Your task to perform on an android device: Search for "razer nari" on target, select the first entry, and add it to the cart. Image 0: 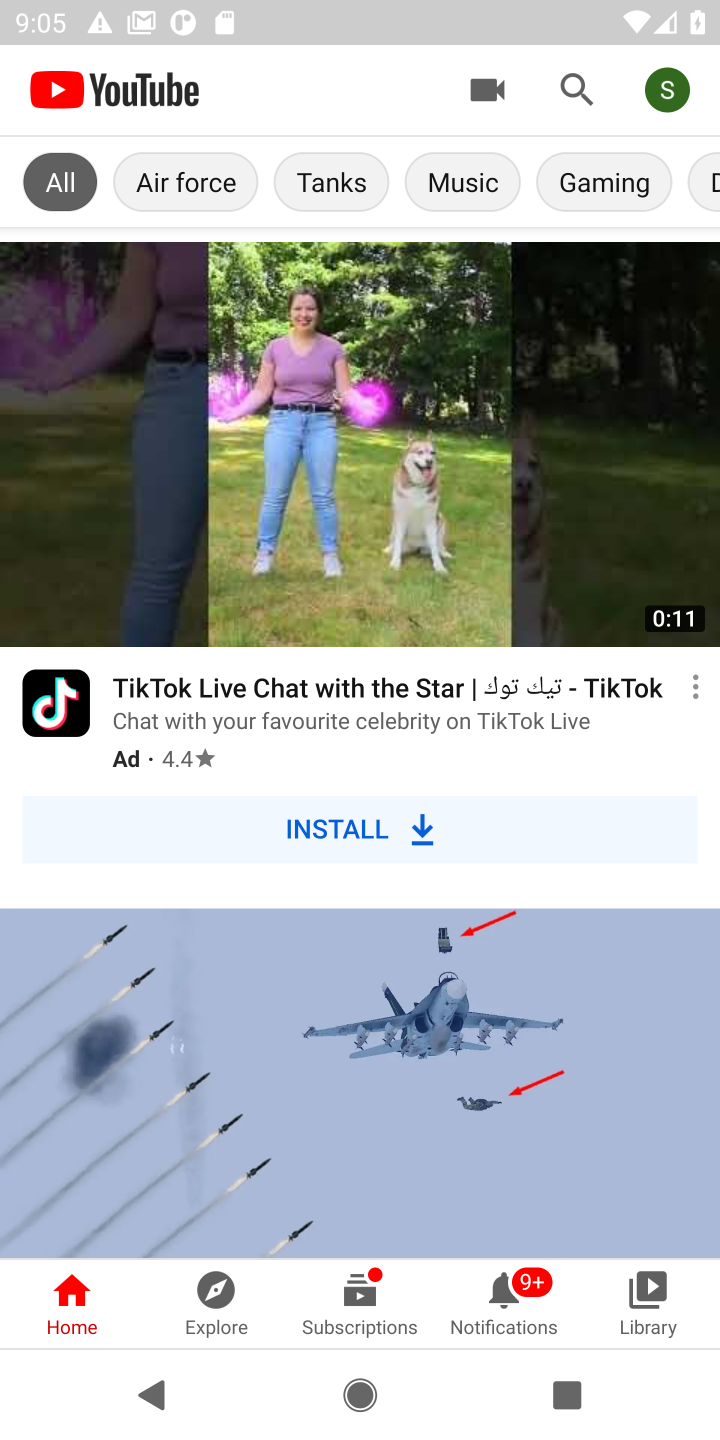
Step 0: press home button
Your task to perform on an android device: Search for "razer nari" on target, select the first entry, and add it to the cart. Image 1: 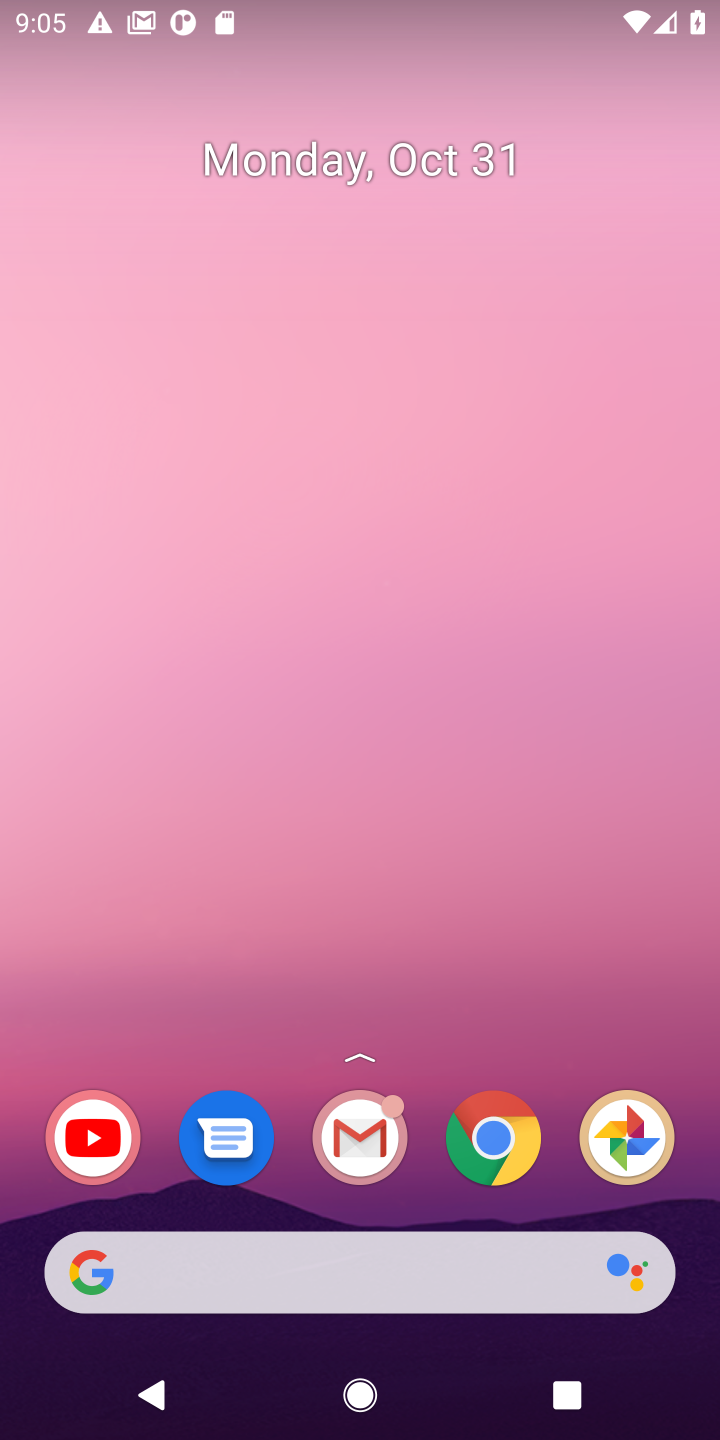
Step 1: drag from (439, 1307) to (422, 156)
Your task to perform on an android device: Search for "razer nari" on target, select the first entry, and add it to the cart. Image 2: 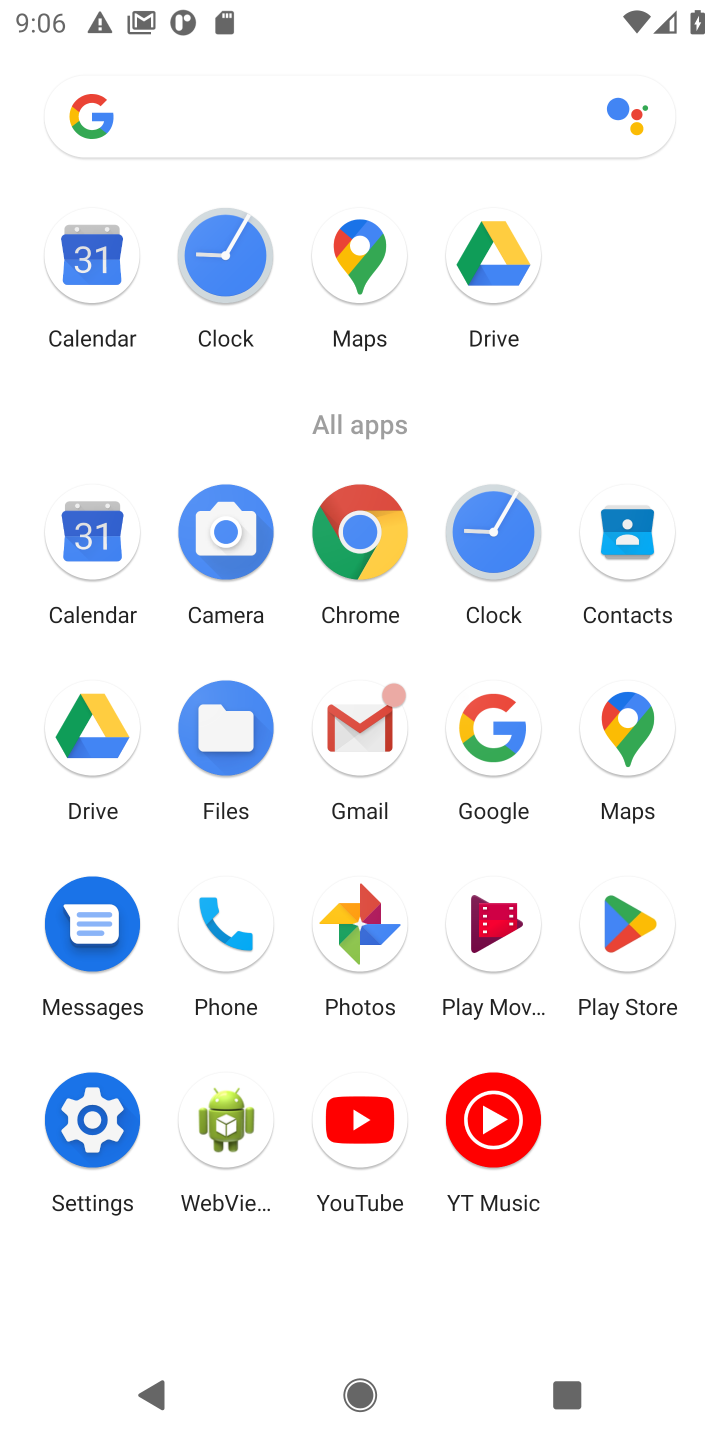
Step 2: click (355, 534)
Your task to perform on an android device: Search for "razer nari" on target, select the first entry, and add it to the cart. Image 3: 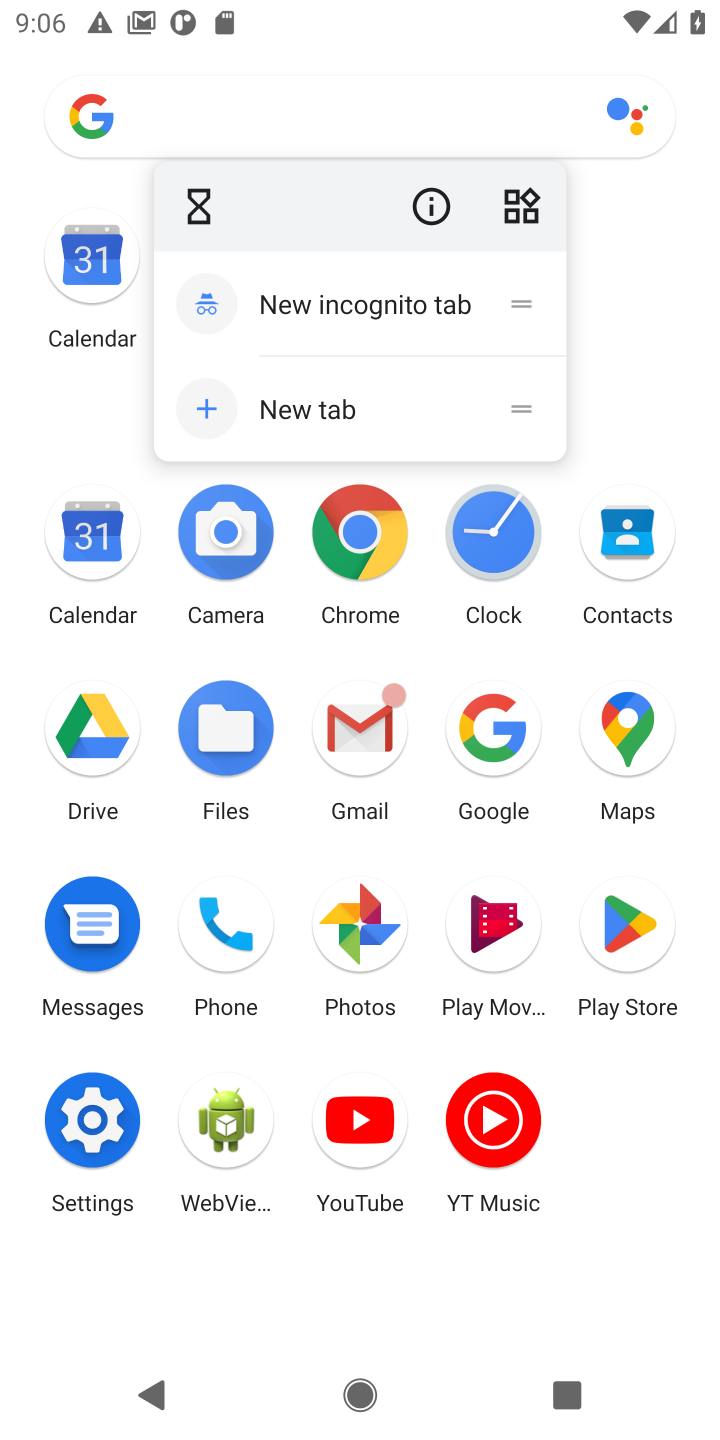
Step 3: click (367, 542)
Your task to perform on an android device: Search for "razer nari" on target, select the first entry, and add it to the cart. Image 4: 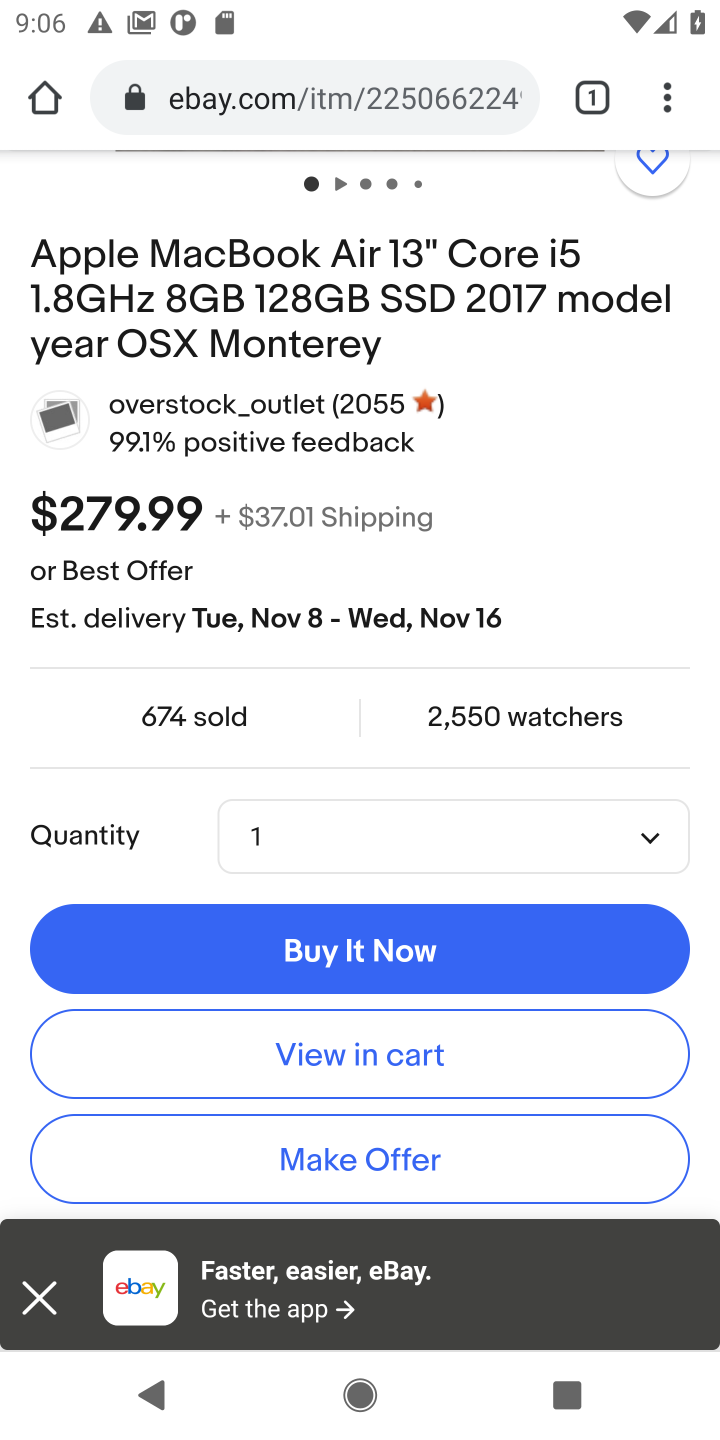
Step 4: click (257, 99)
Your task to perform on an android device: Search for "razer nari" on target, select the first entry, and add it to the cart. Image 5: 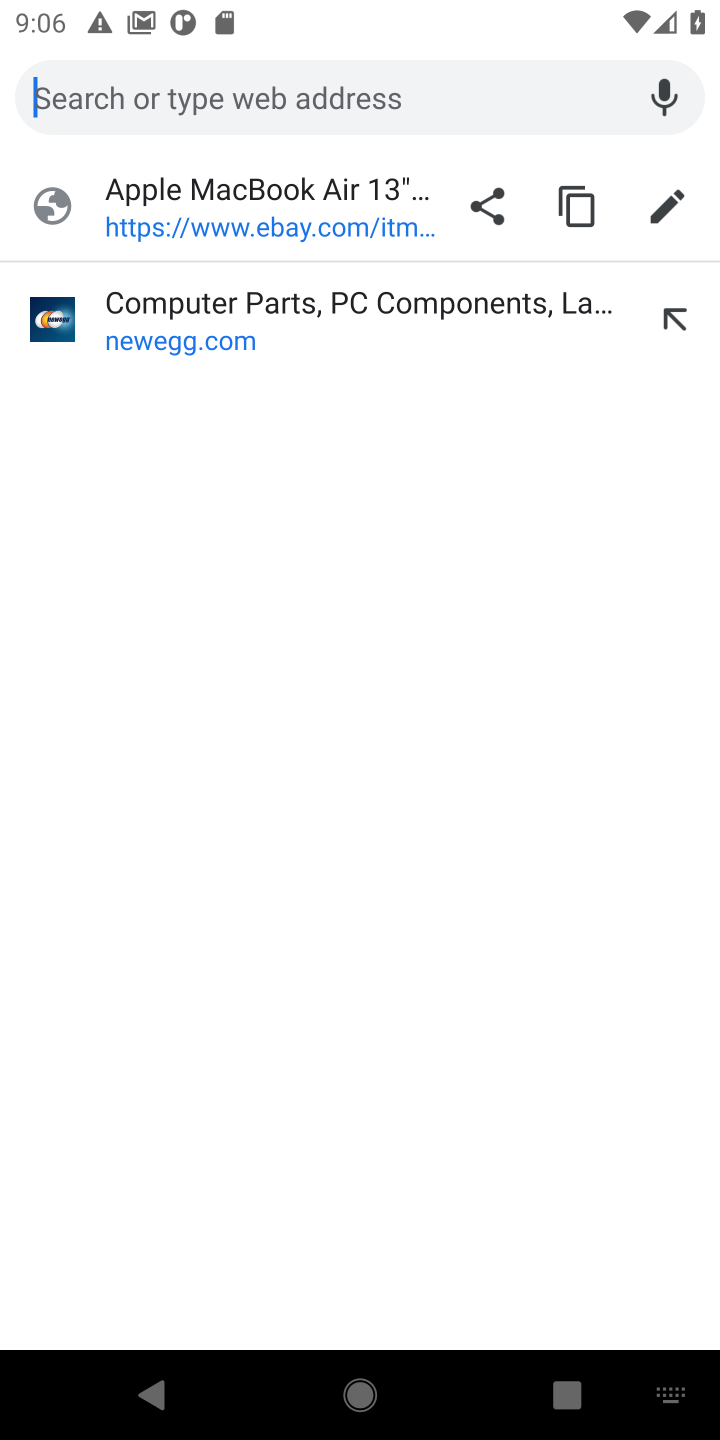
Step 5: type "target"
Your task to perform on an android device: Search for "razer nari" on target, select the first entry, and add it to the cart. Image 6: 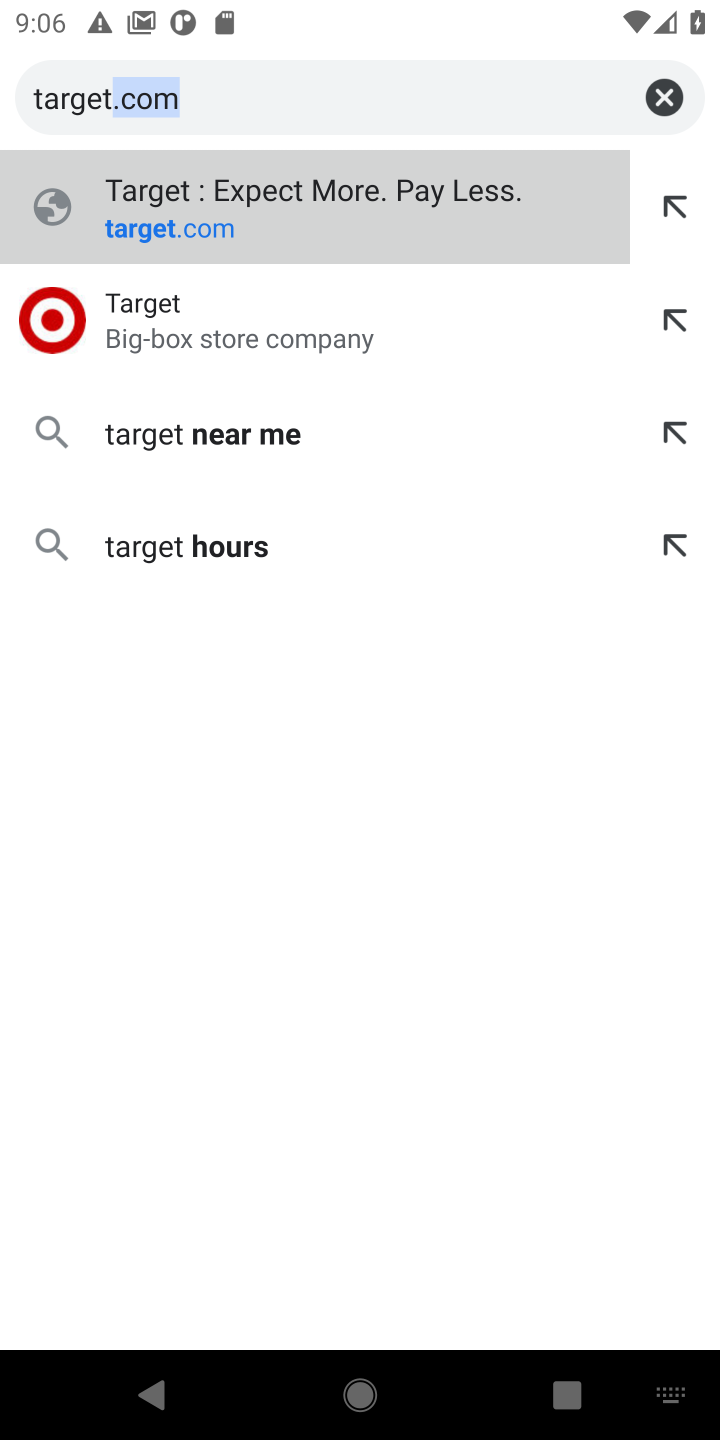
Step 6: click (154, 225)
Your task to perform on an android device: Search for "razer nari" on target, select the first entry, and add it to the cart. Image 7: 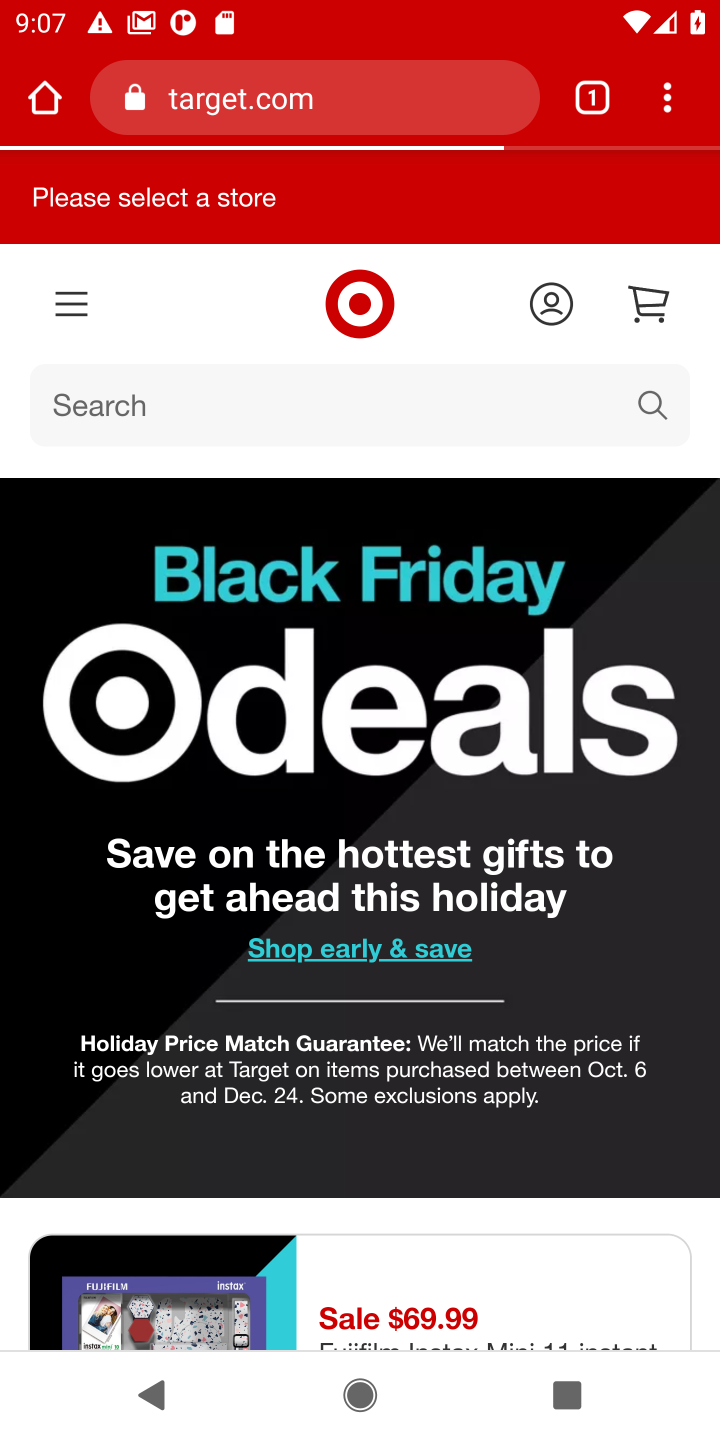
Step 7: drag from (449, 1147) to (637, 1404)
Your task to perform on an android device: Search for "razer nari" on target, select the first entry, and add it to the cart. Image 8: 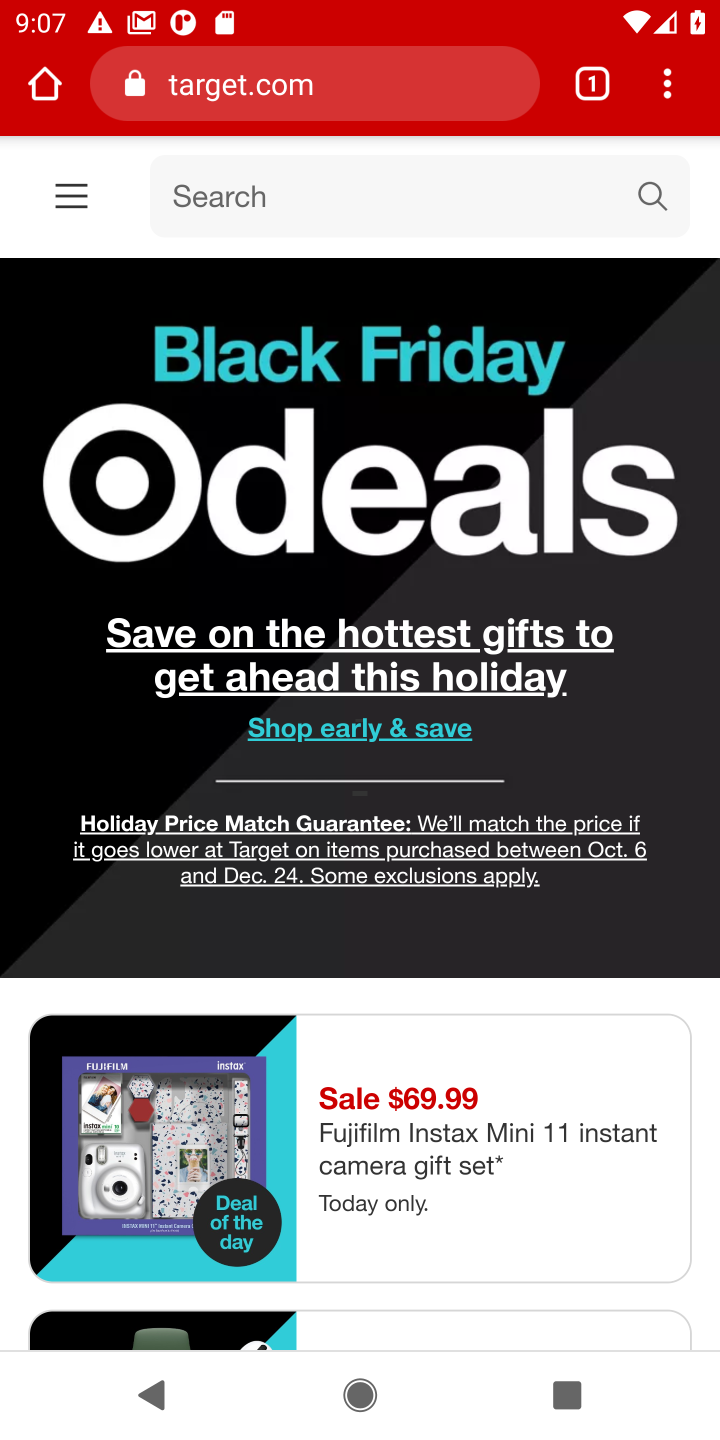
Step 8: click (300, 188)
Your task to perform on an android device: Search for "razer nari" on target, select the first entry, and add it to the cart. Image 9: 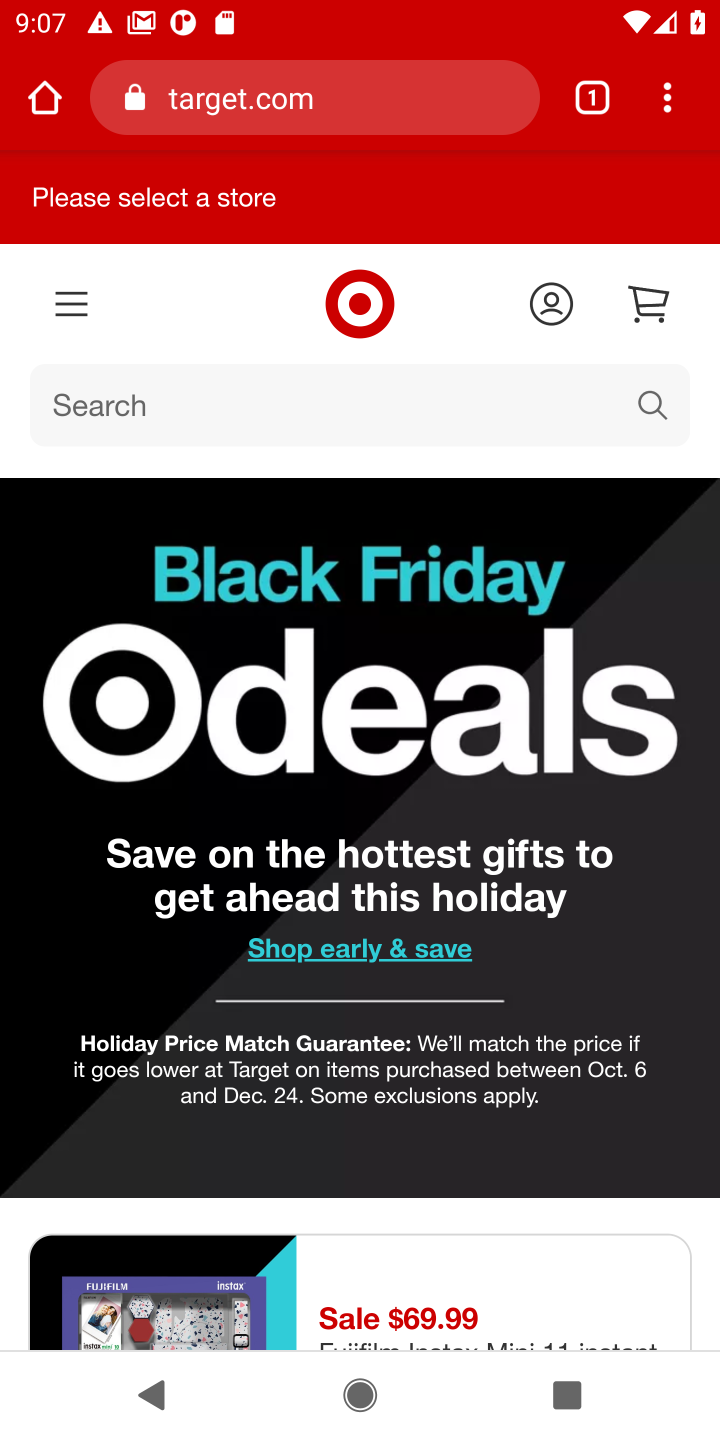
Step 9: click (130, 395)
Your task to perform on an android device: Search for "razer nari" on target, select the first entry, and add it to the cart. Image 10: 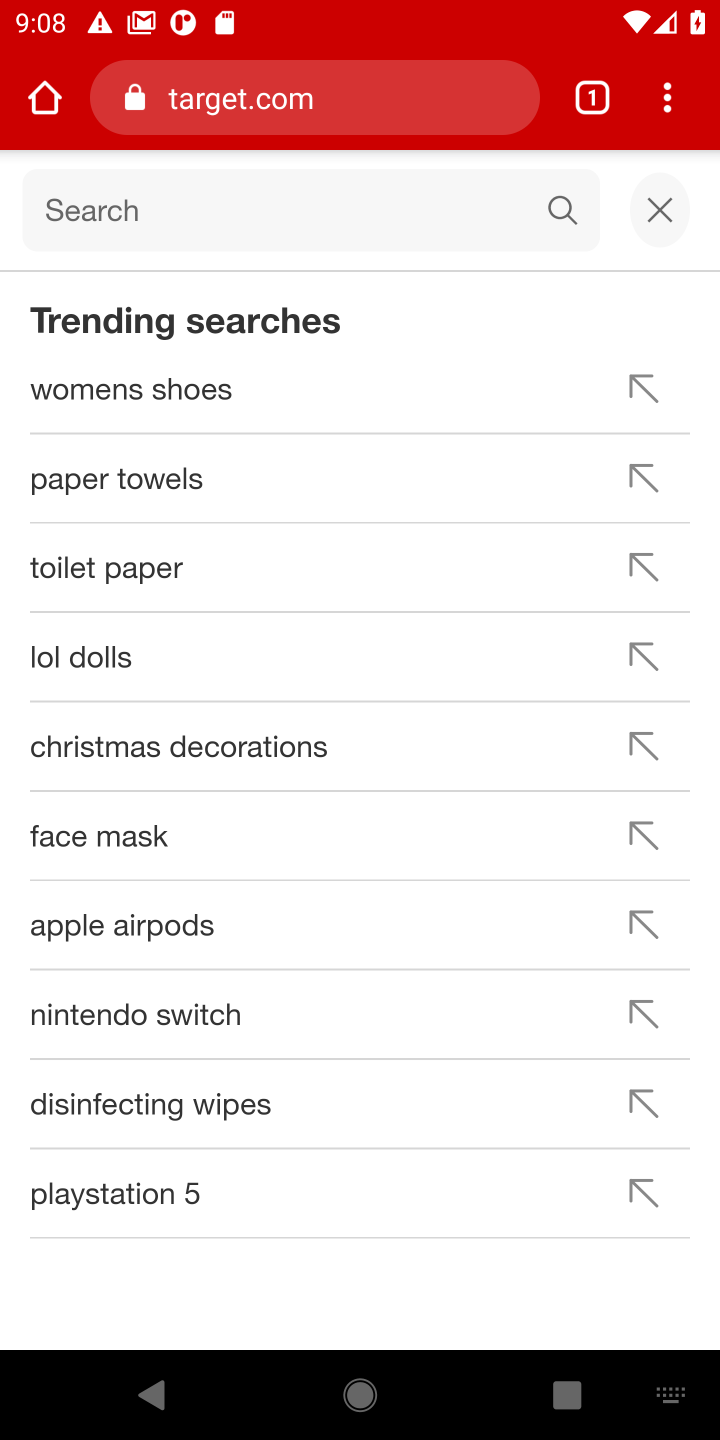
Step 10: type "razer nari"
Your task to perform on an android device: Search for "razer nari" on target, select the first entry, and add it to the cart. Image 11: 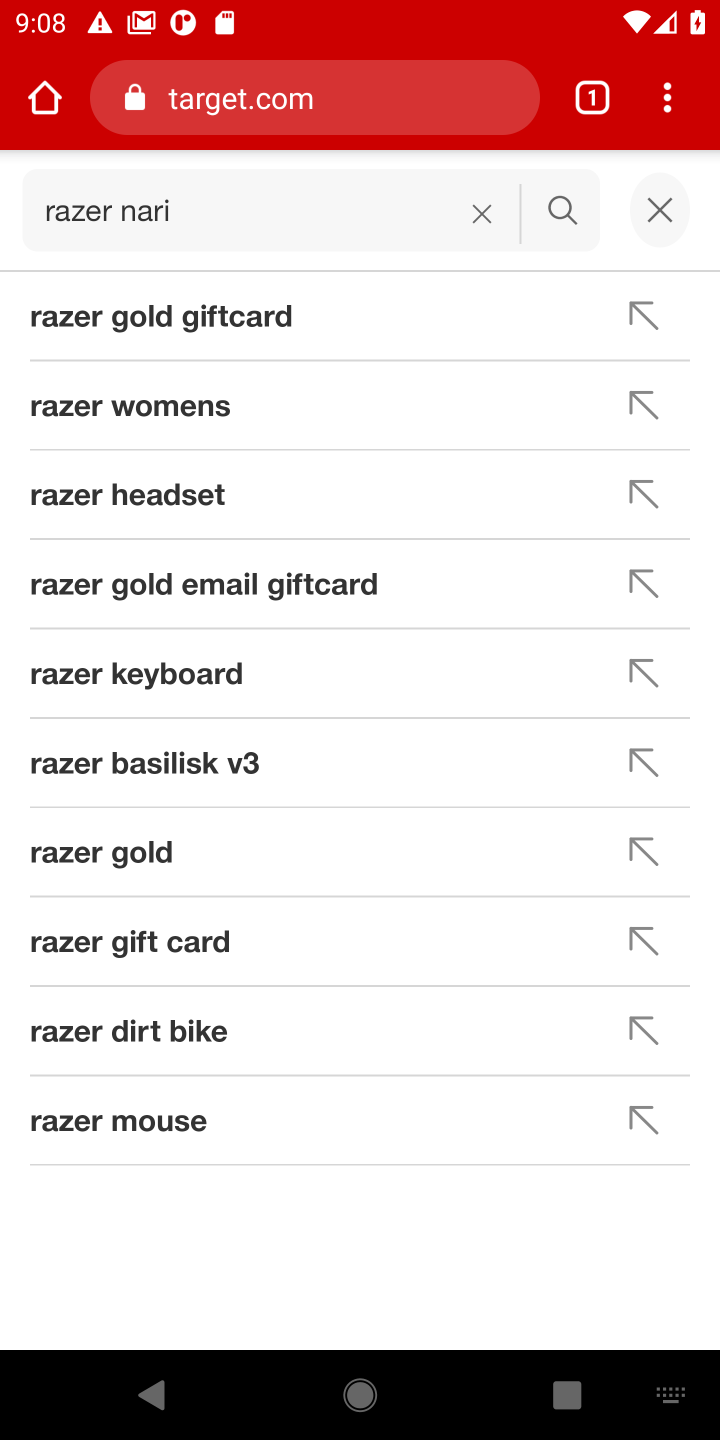
Step 11: click (561, 204)
Your task to perform on an android device: Search for "razer nari" on target, select the first entry, and add it to the cart. Image 12: 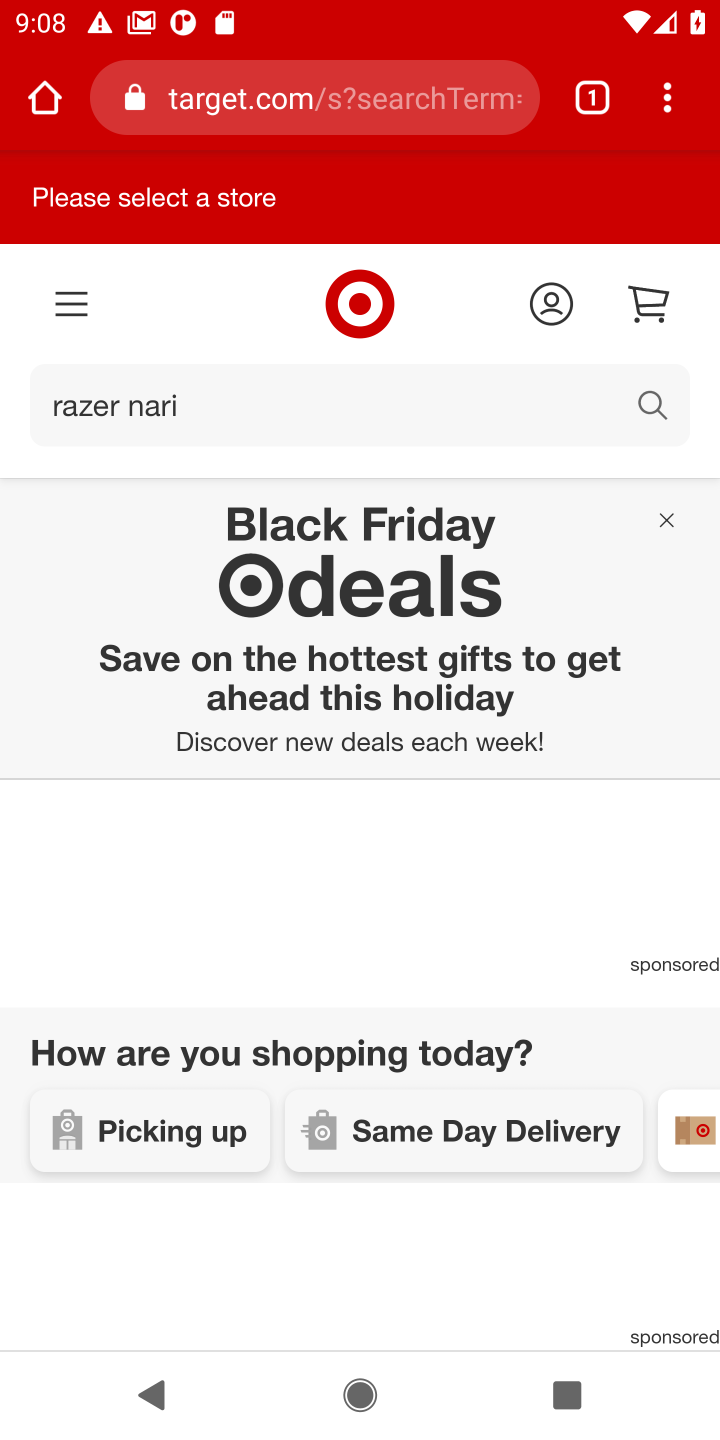
Step 12: drag from (406, 1214) to (454, 318)
Your task to perform on an android device: Search for "razer nari" on target, select the first entry, and add it to the cart. Image 13: 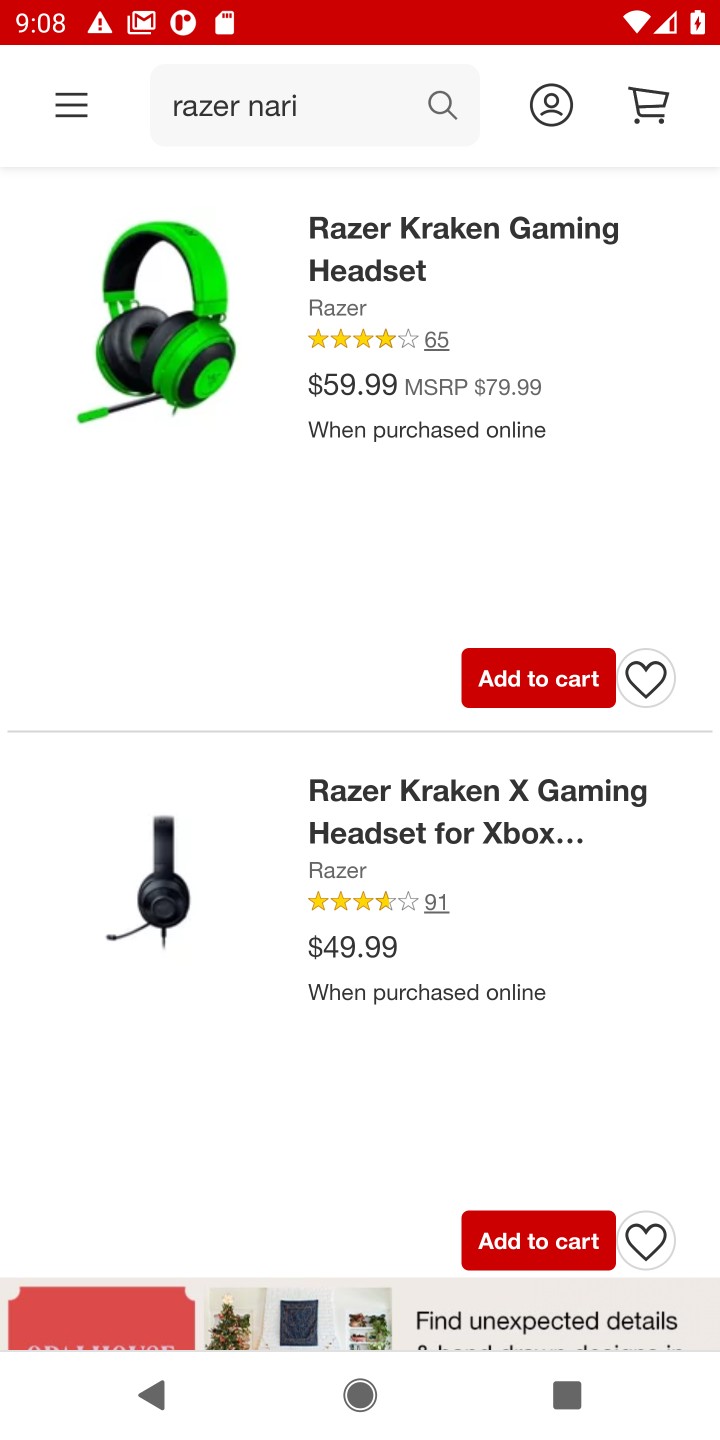
Step 13: click (207, 503)
Your task to perform on an android device: Search for "razer nari" on target, select the first entry, and add it to the cart. Image 14: 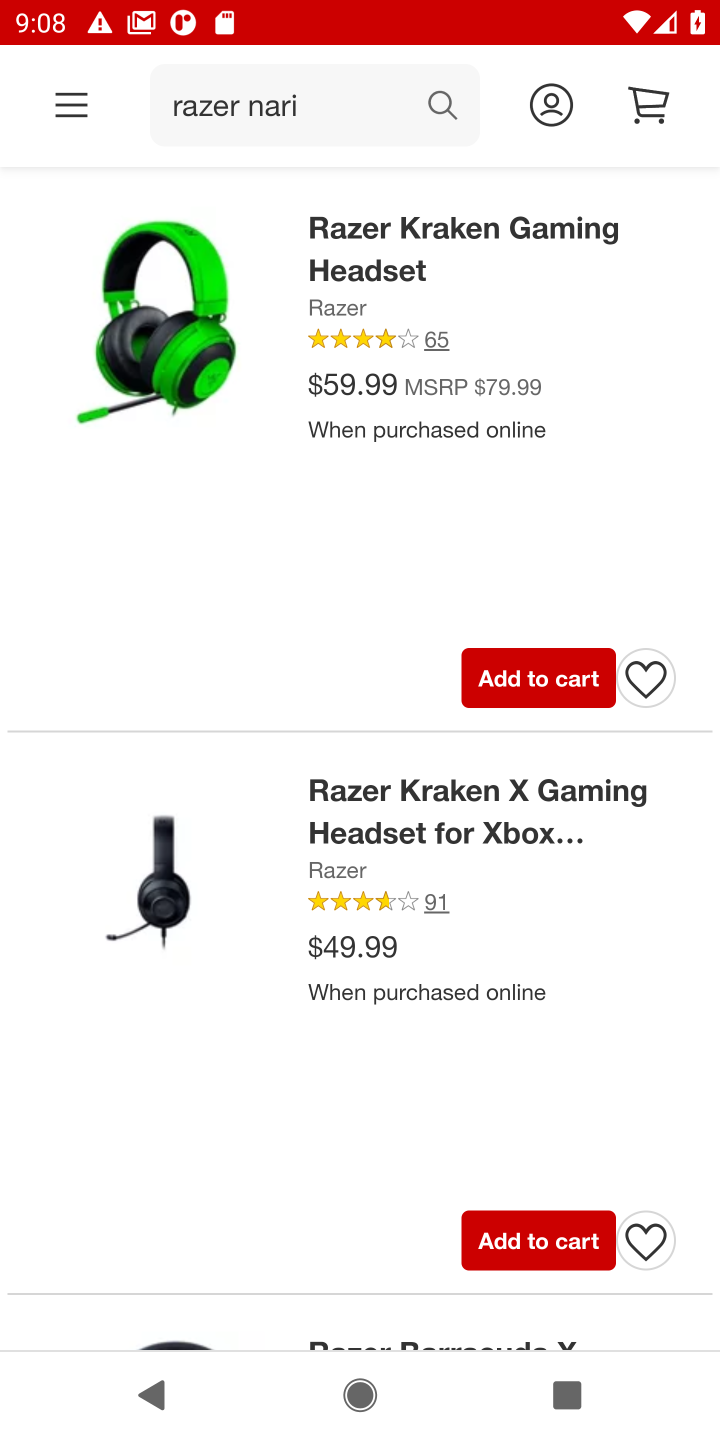
Step 14: click (184, 304)
Your task to perform on an android device: Search for "razer nari" on target, select the first entry, and add it to the cart. Image 15: 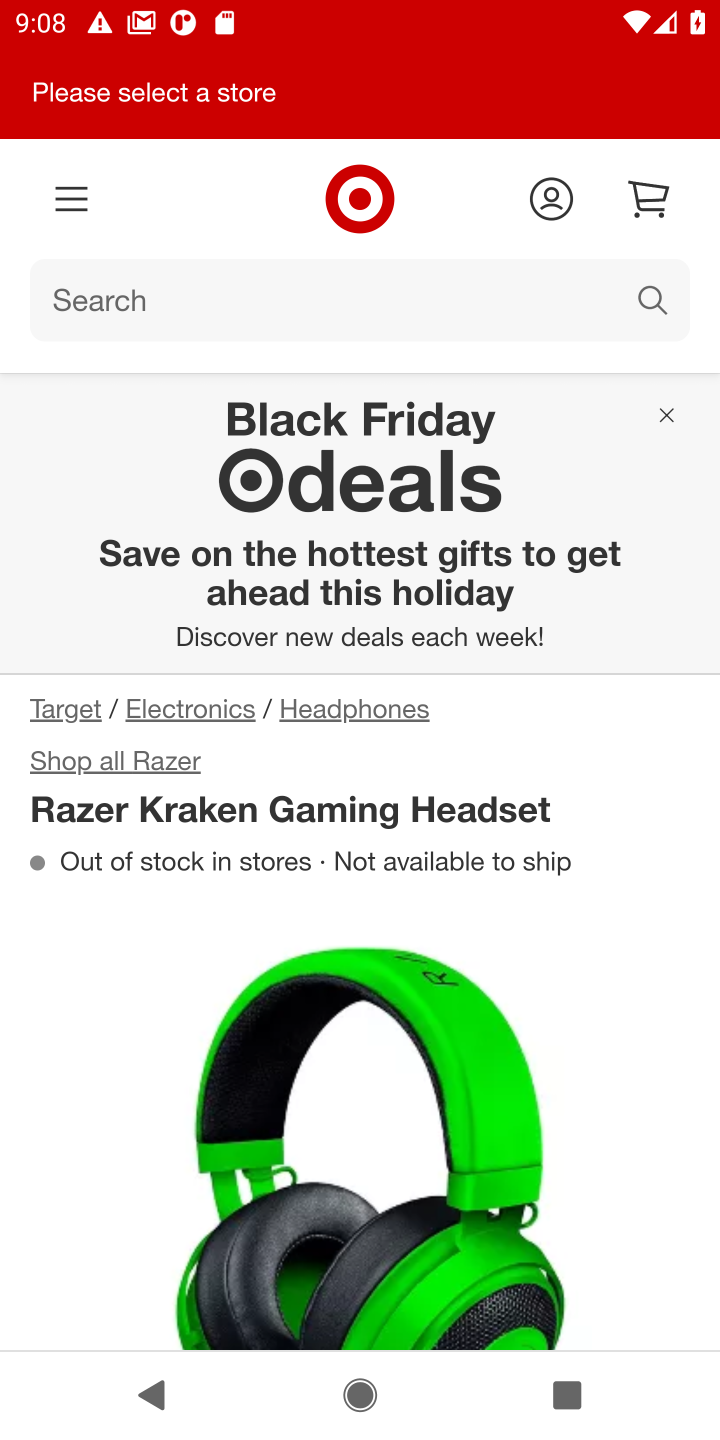
Step 15: drag from (410, 775) to (467, 442)
Your task to perform on an android device: Search for "razer nari" on target, select the first entry, and add it to the cart. Image 16: 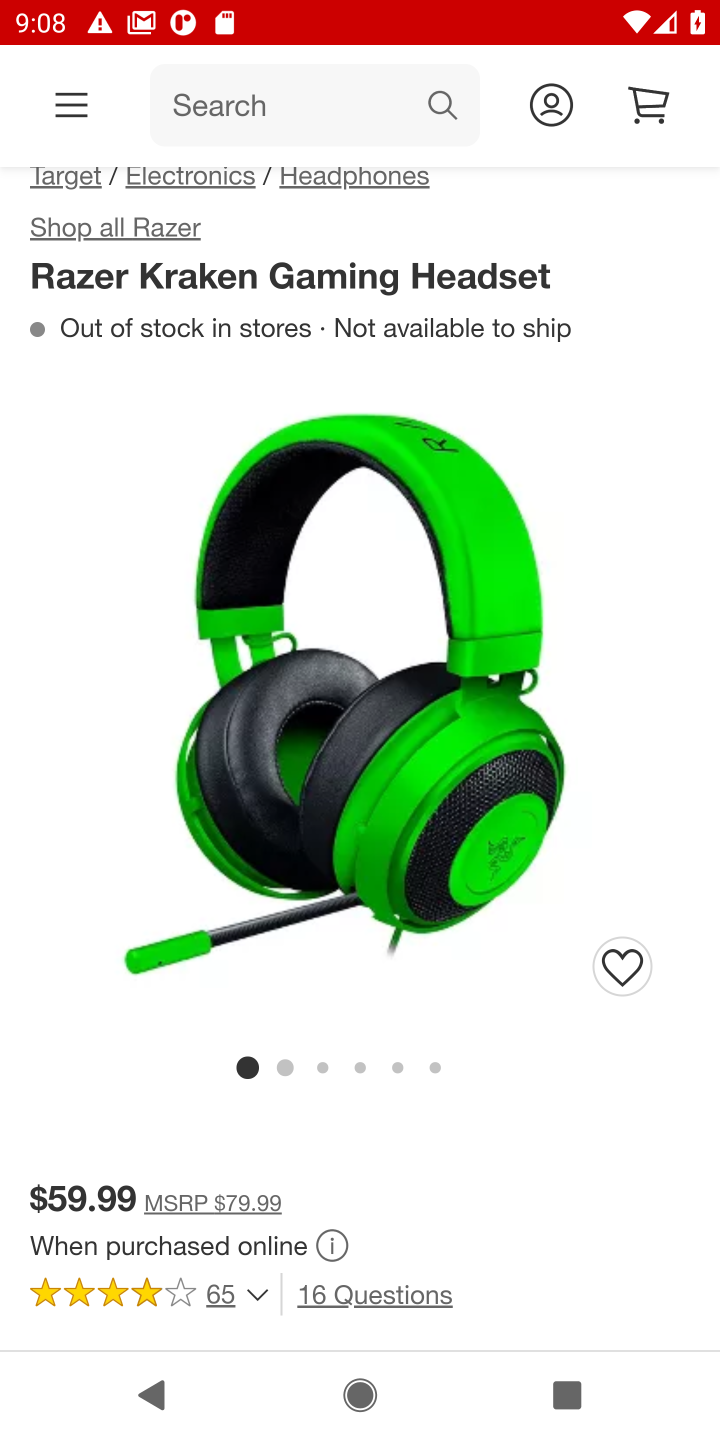
Step 16: drag from (316, 1141) to (462, 371)
Your task to perform on an android device: Search for "razer nari" on target, select the first entry, and add it to the cart. Image 17: 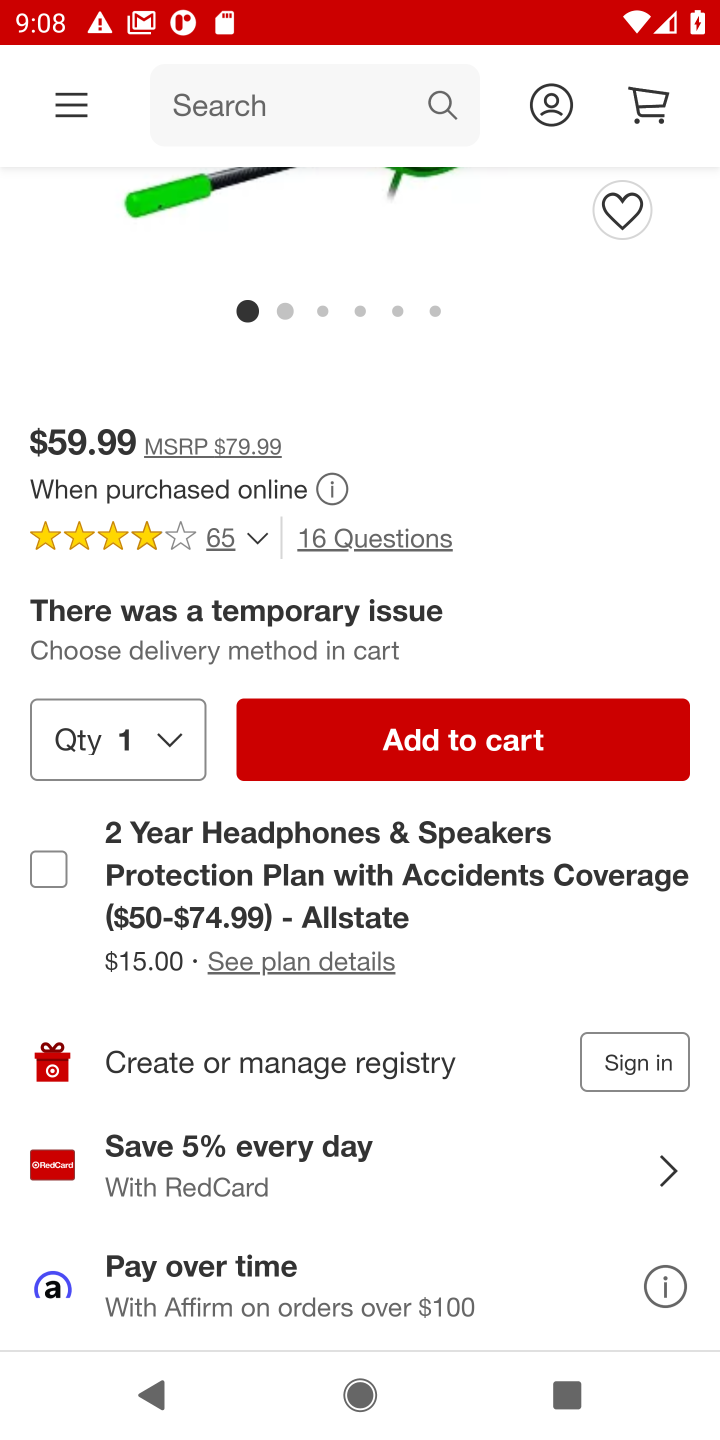
Step 17: click (457, 736)
Your task to perform on an android device: Search for "razer nari" on target, select the first entry, and add it to the cart. Image 18: 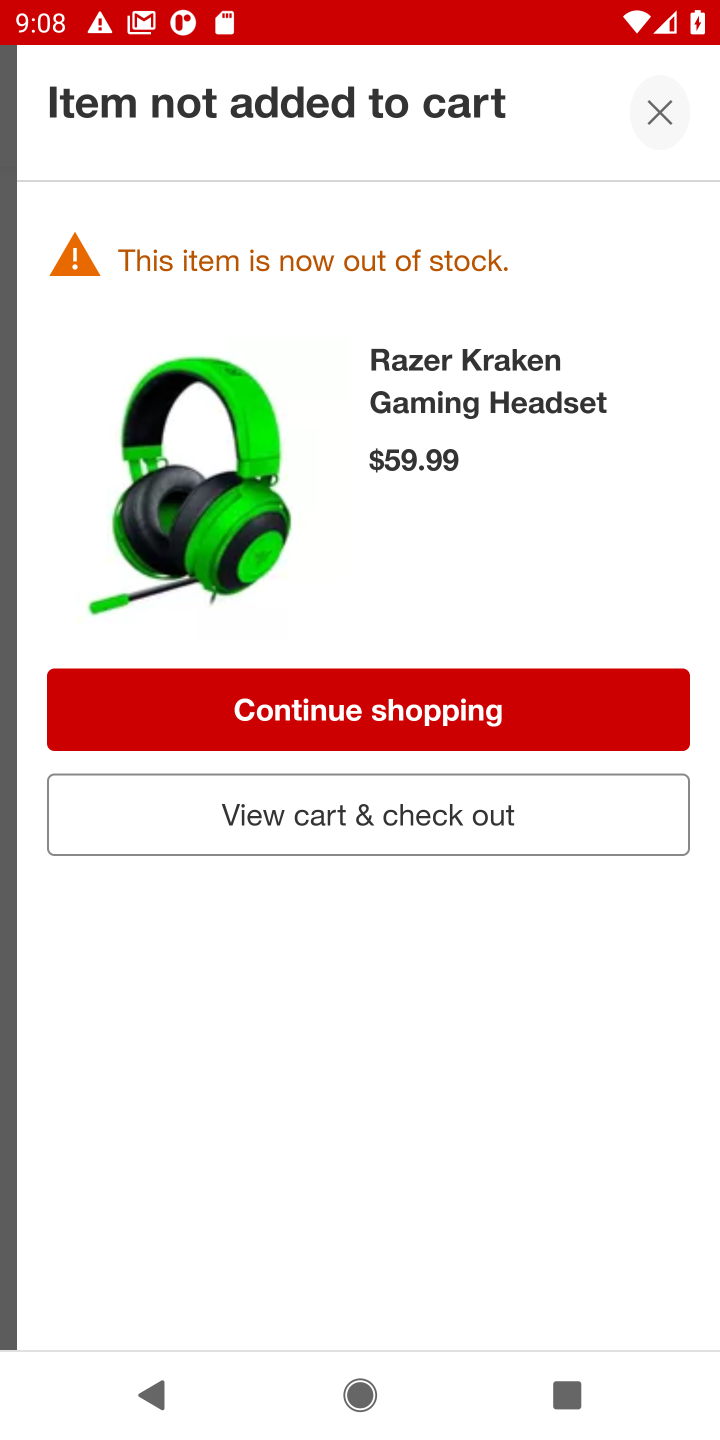
Step 18: task complete